Your task to perform on an android device: Open internet settings Image 0: 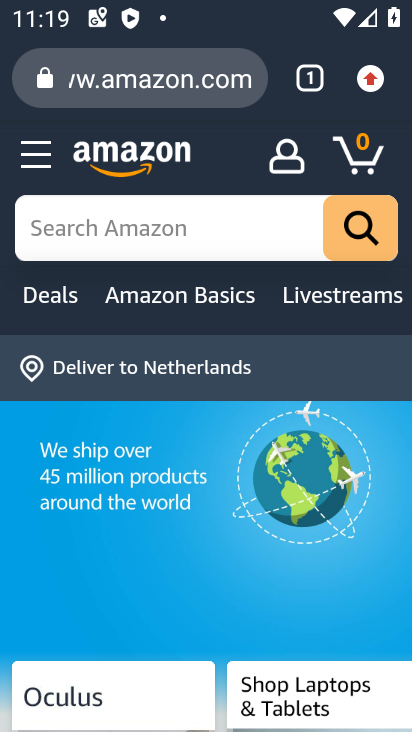
Step 0: press home button
Your task to perform on an android device: Open internet settings Image 1: 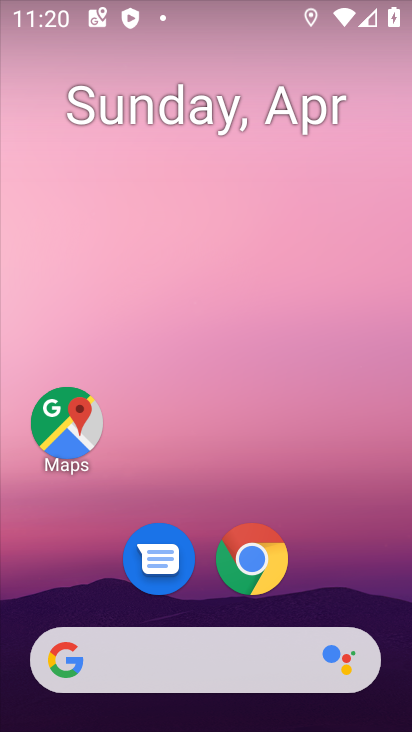
Step 1: drag from (358, 548) to (378, 65)
Your task to perform on an android device: Open internet settings Image 2: 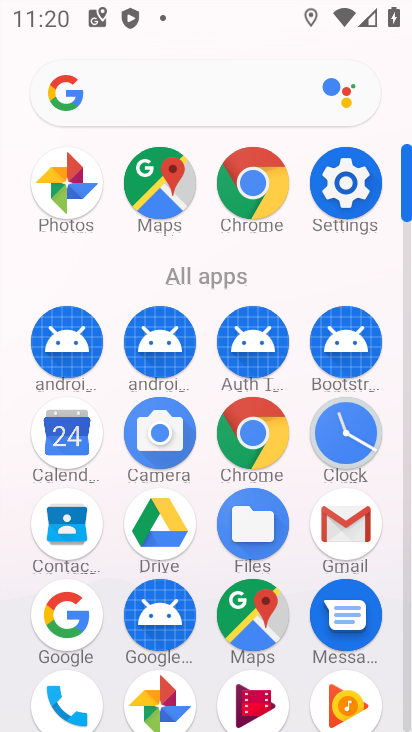
Step 2: click (341, 171)
Your task to perform on an android device: Open internet settings Image 3: 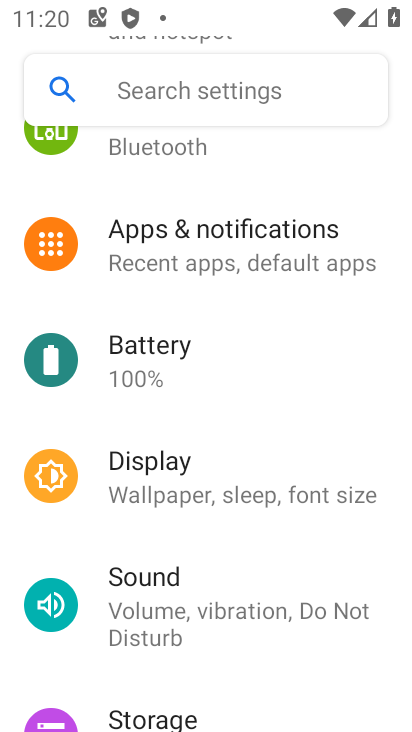
Step 3: drag from (196, 390) to (230, 514)
Your task to perform on an android device: Open internet settings Image 4: 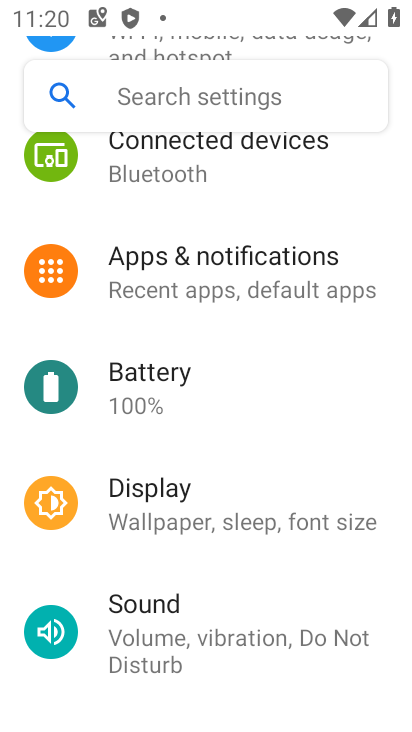
Step 4: drag from (236, 386) to (243, 443)
Your task to perform on an android device: Open internet settings Image 5: 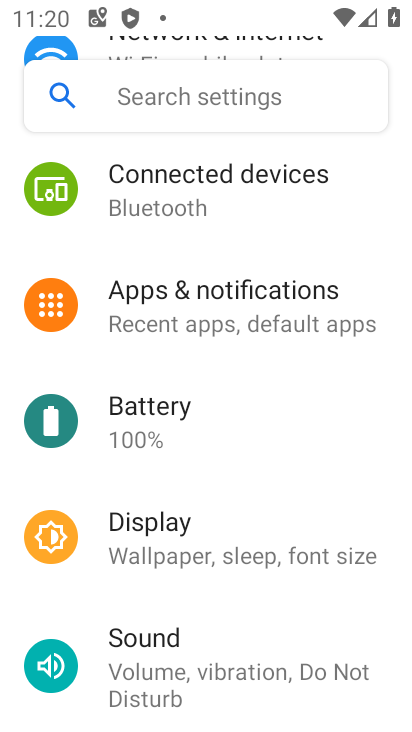
Step 5: drag from (249, 338) to (272, 425)
Your task to perform on an android device: Open internet settings Image 6: 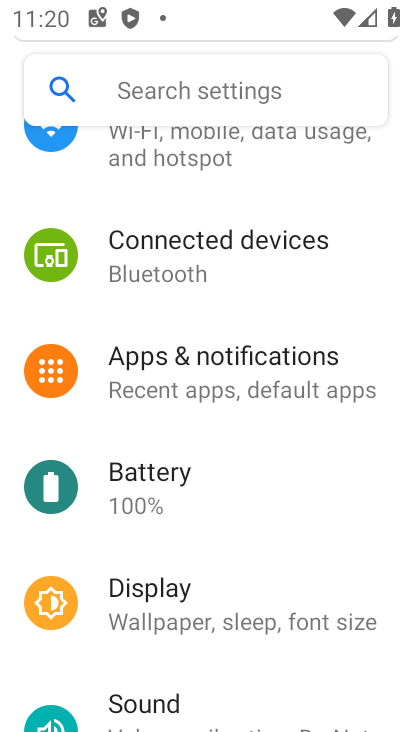
Step 6: drag from (256, 349) to (285, 428)
Your task to perform on an android device: Open internet settings Image 7: 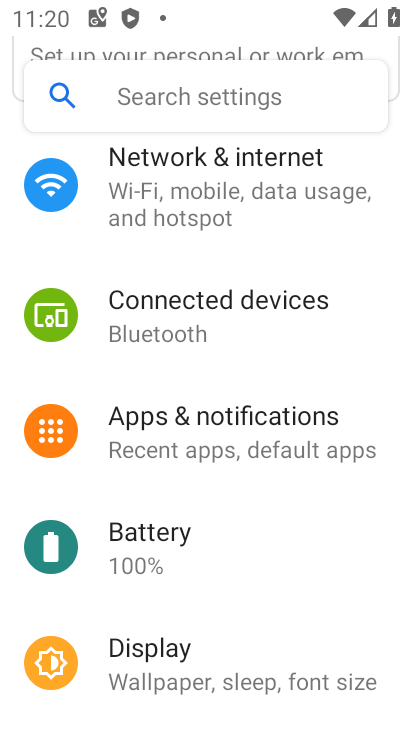
Step 7: drag from (265, 364) to (282, 434)
Your task to perform on an android device: Open internet settings Image 8: 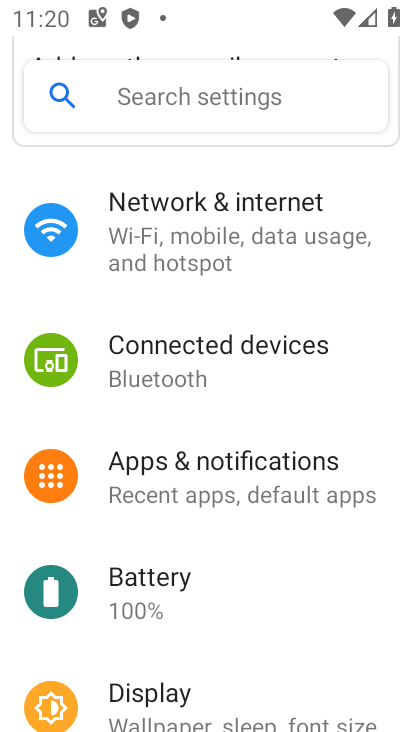
Step 8: drag from (273, 323) to (297, 414)
Your task to perform on an android device: Open internet settings Image 9: 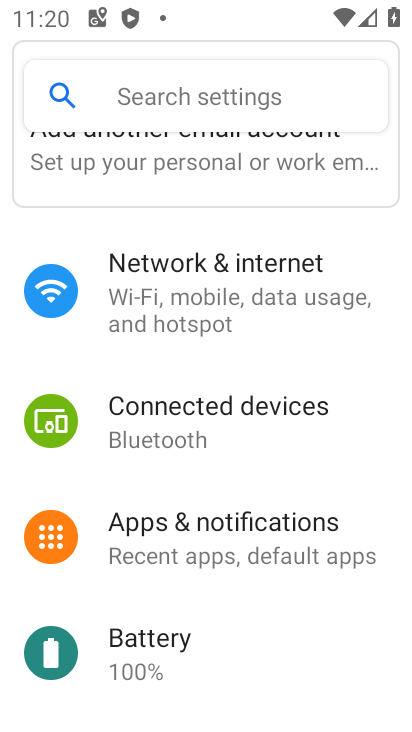
Step 9: click (267, 321)
Your task to perform on an android device: Open internet settings Image 10: 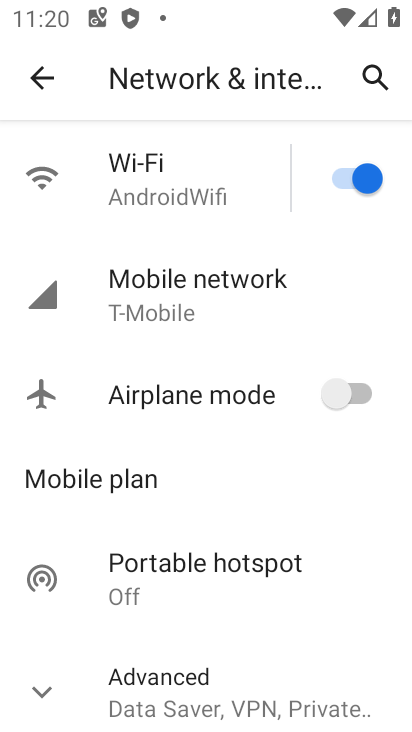
Step 10: click (116, 287)
Your task to perform on an android device: Open internet settings Image 11: 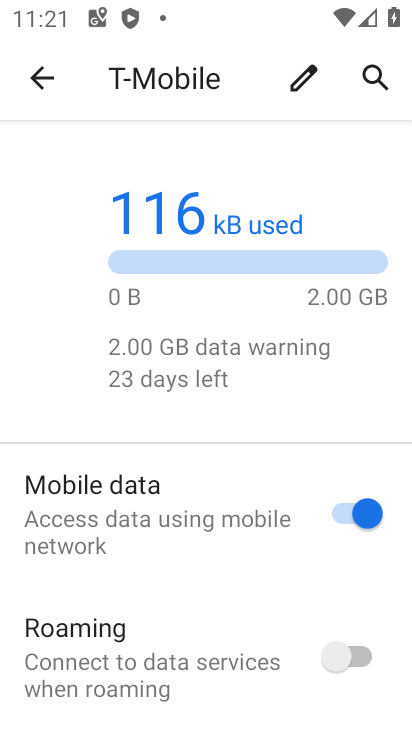
Step 11: task complete